Your task to perform on an android device: Open the phone app and click the voicemail tab. Image 0: 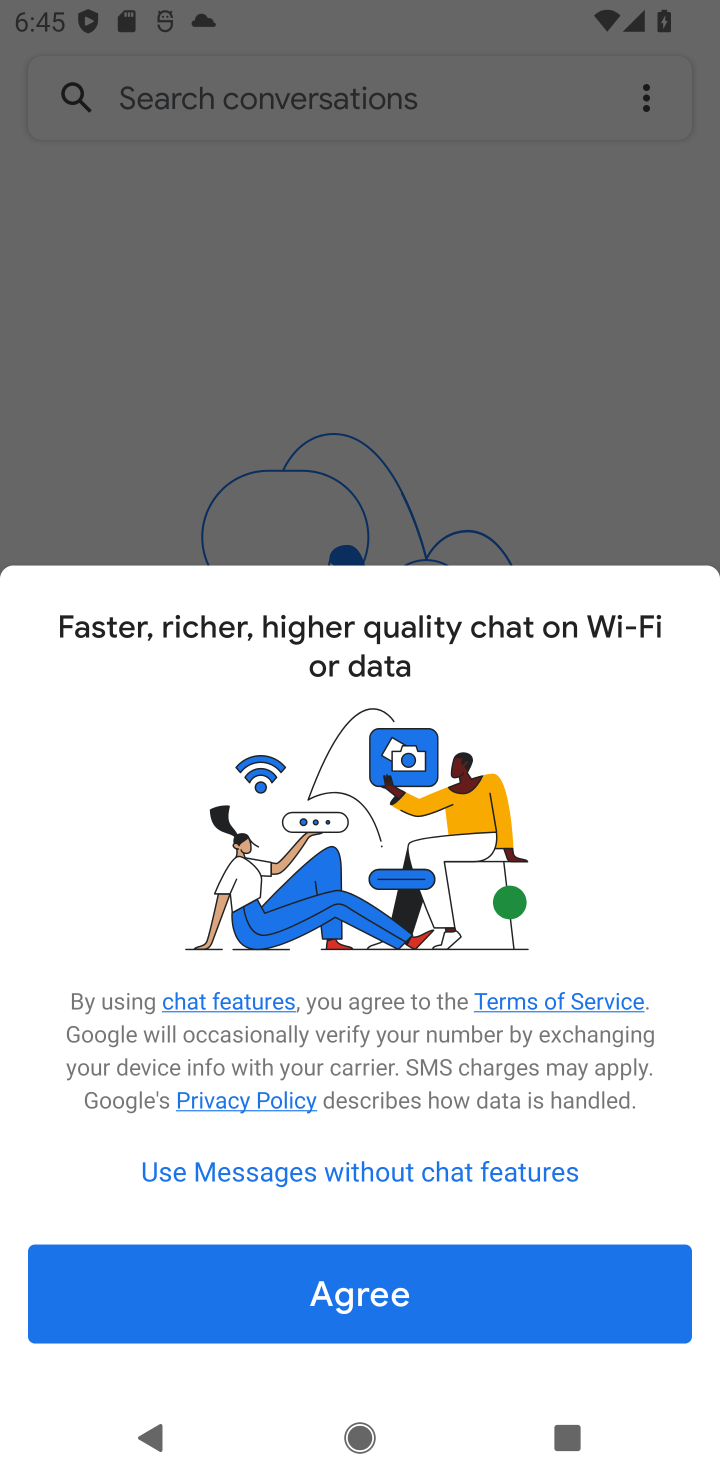
Step 0: press home button
Your task to perform on an android device: Open the phone app and click the voicemail tab. Image 1: 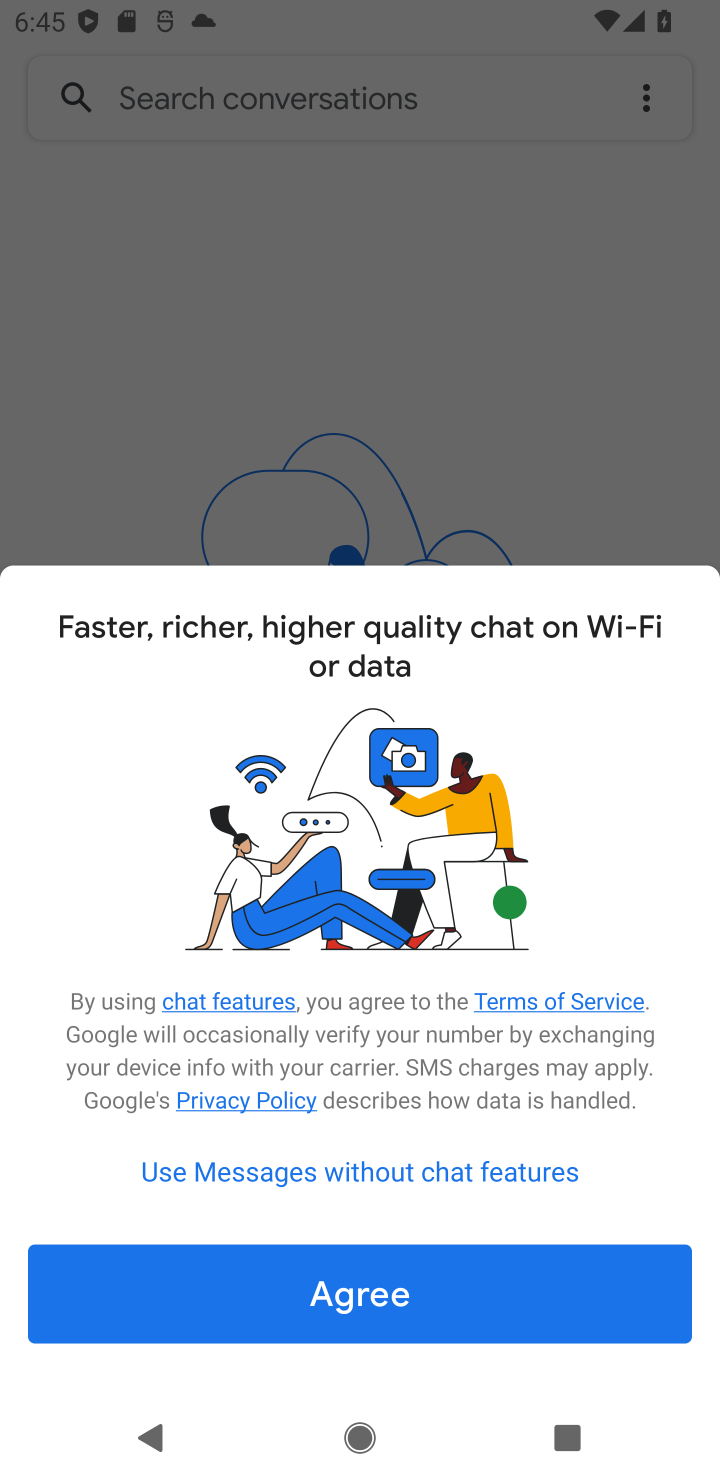
Step 1: press home button
Your task to perform on an android device: Open the phone app and click the voicemail tab. Image 2: 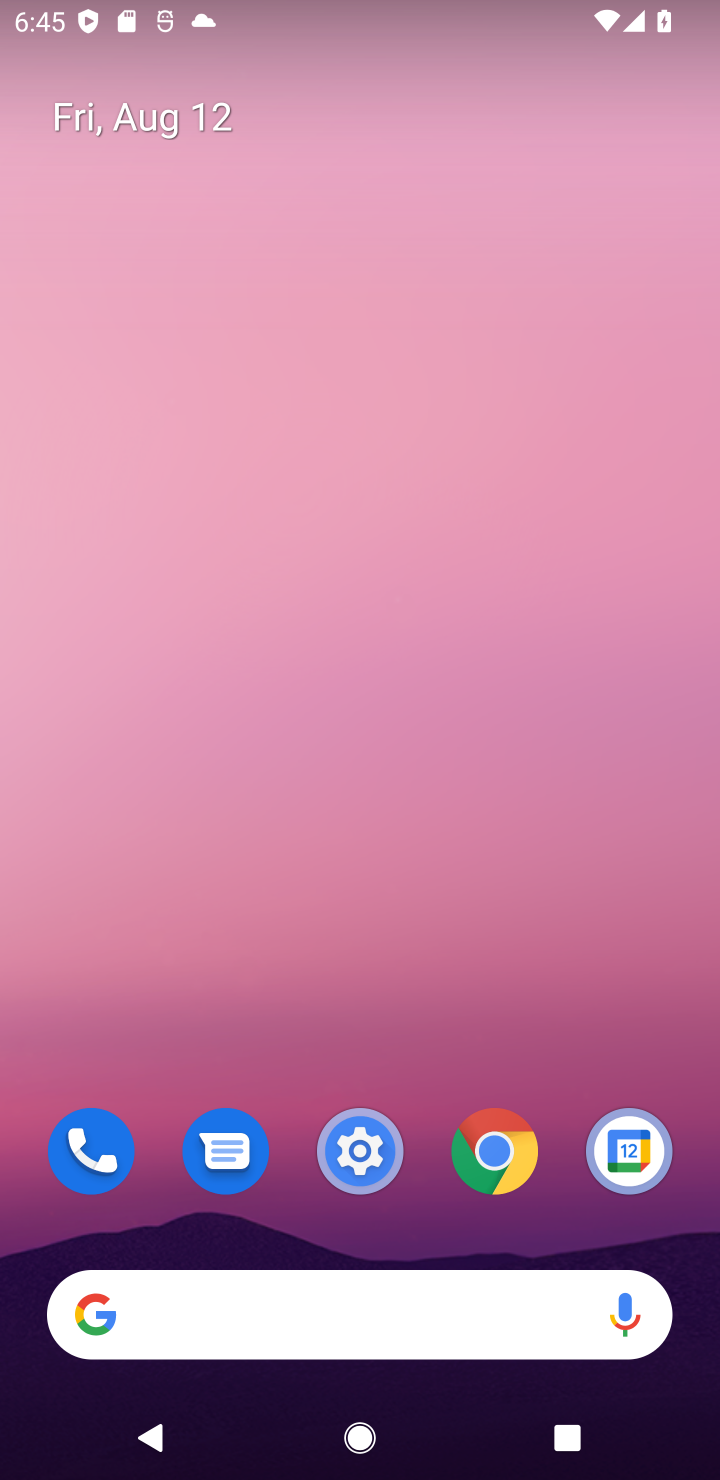
Step 2: drag from (401, 917) to (448, 26)
Your task to perform on an android device: Open the phone app and click the voicemail tab. Image 3: 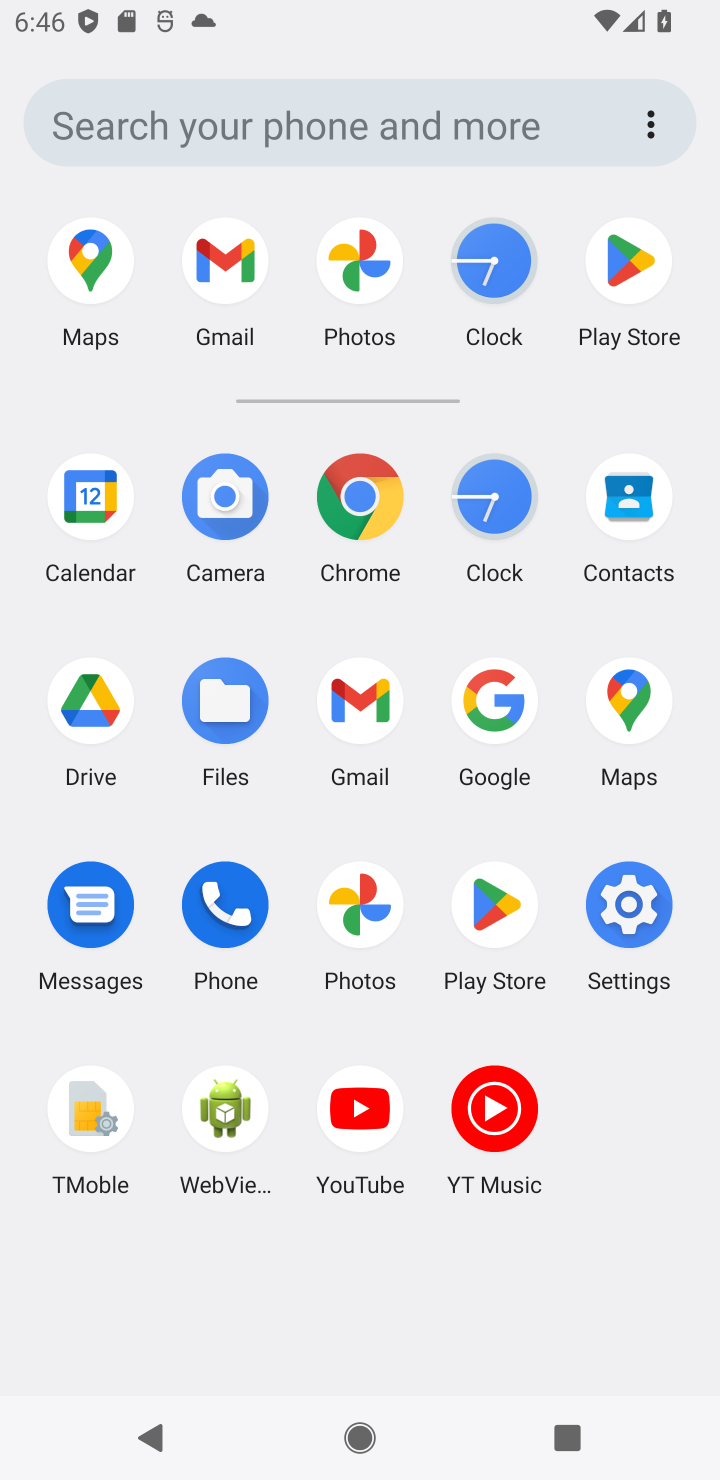
Step 3: click (234, 920)
Your task to perform on an android device: Open the phone app and click the voicemail tab. Image 4: 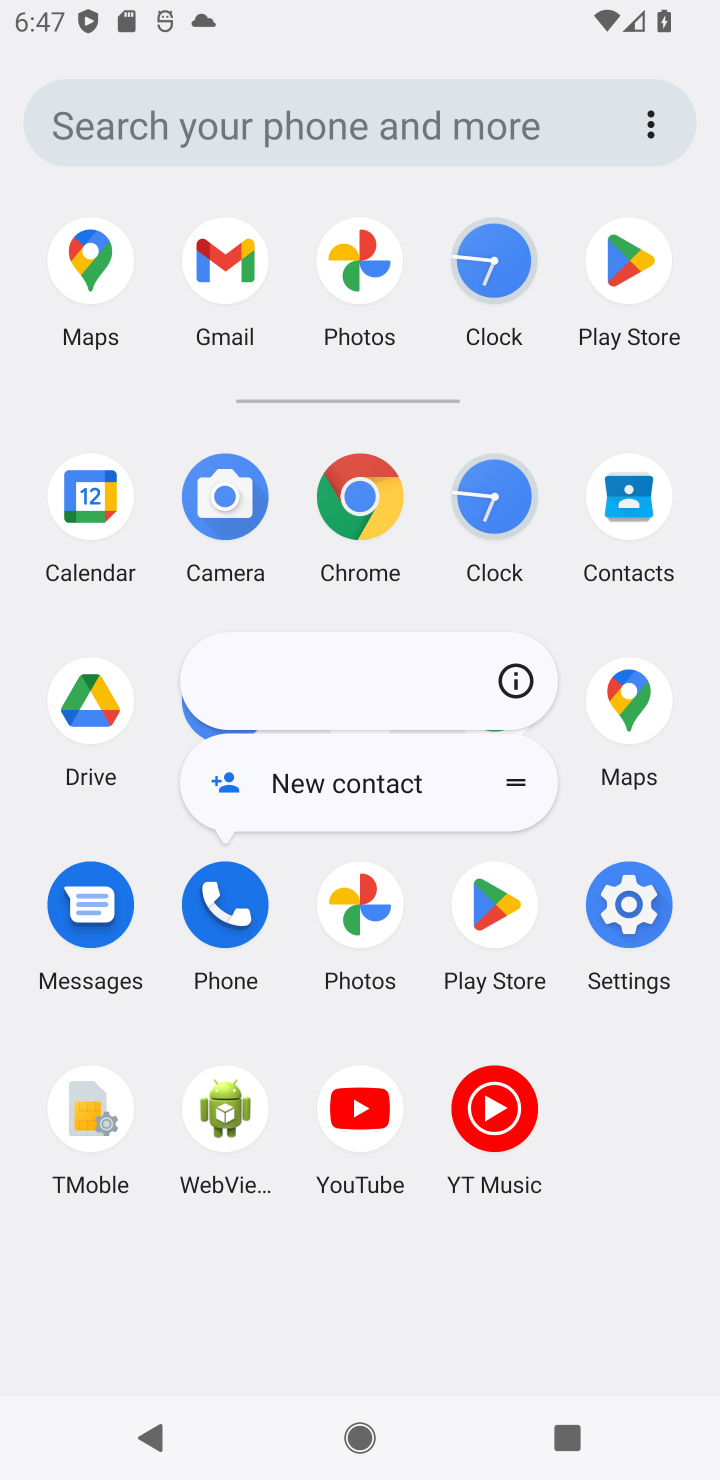
Step 4: click (244, 899)
Your task to perform on an android device: Open the phone app and click the voicemail tab. Image 5: 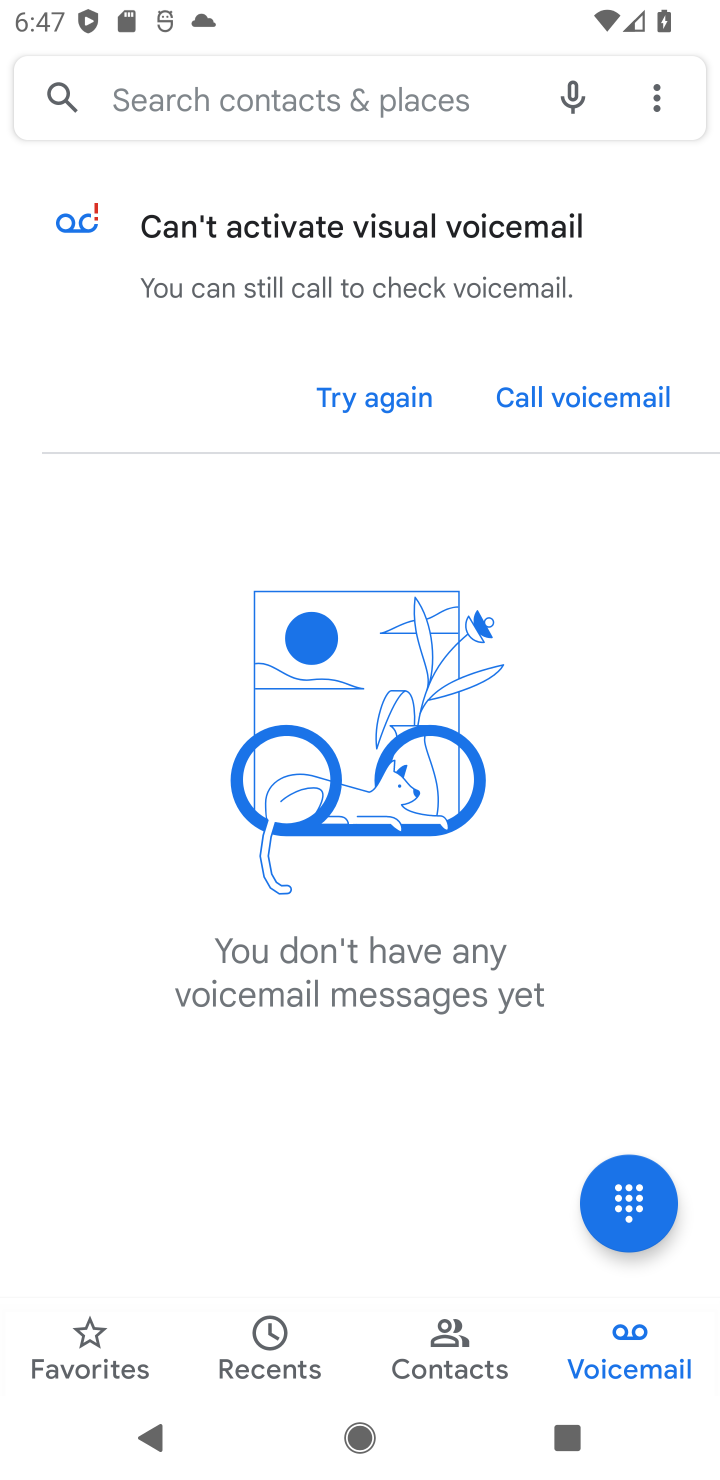
Step 5: task complete